Your task to perform on an android device: Open Android settings Image 0: 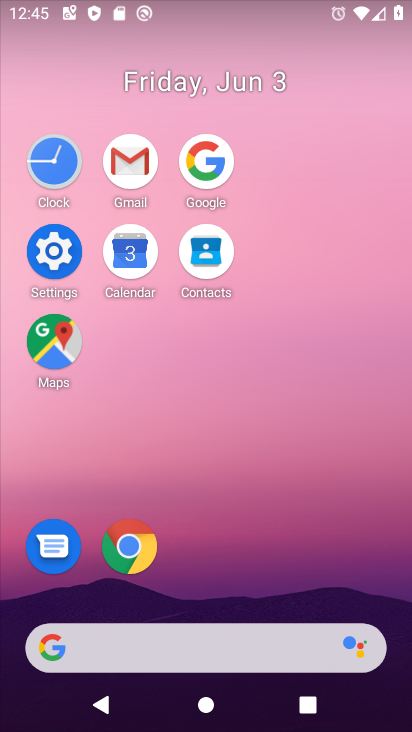
Step 0: click (47, 243)
Your task to perform on an android device: Open Android settings Image 1: 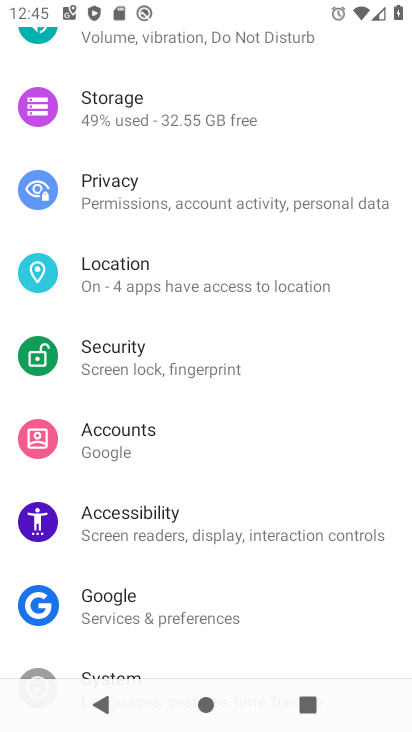
Step 1: task complete